Your task to perform on an android device: open app "Etsy: Buy & Sell Unique Items" (install if not already installed) Image 0: 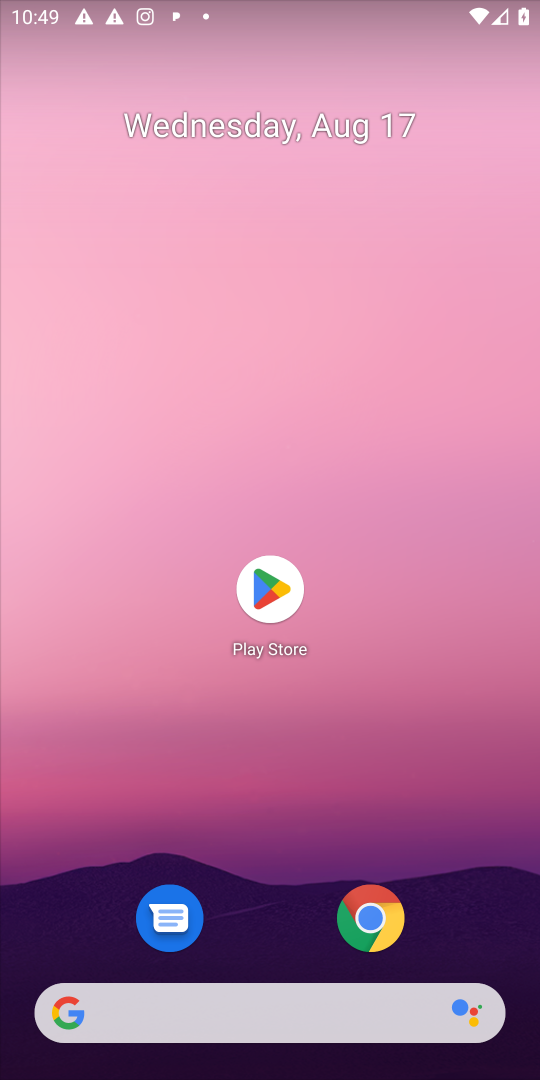
Step 0: click (271, 598)
Your task to perform on an android device: open app "Etsy: Buy & Sell Unique Items" (install if not already installed) Image 1: 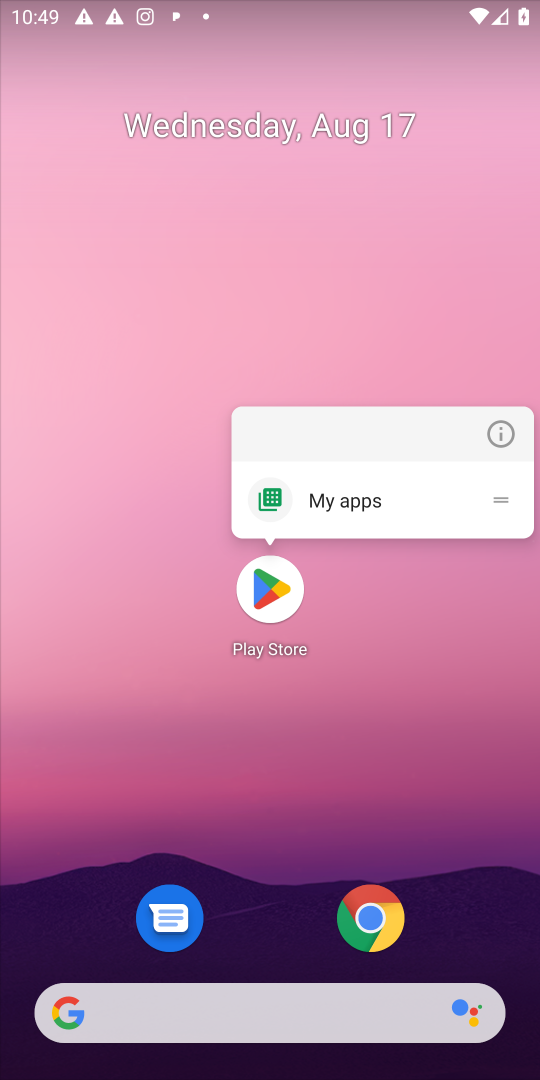
Step 1: click (271, 598)
Your task to perform on an android device: open app "Etsy: Buy & Sell Unique Items" (install if not already installed) Image 2: 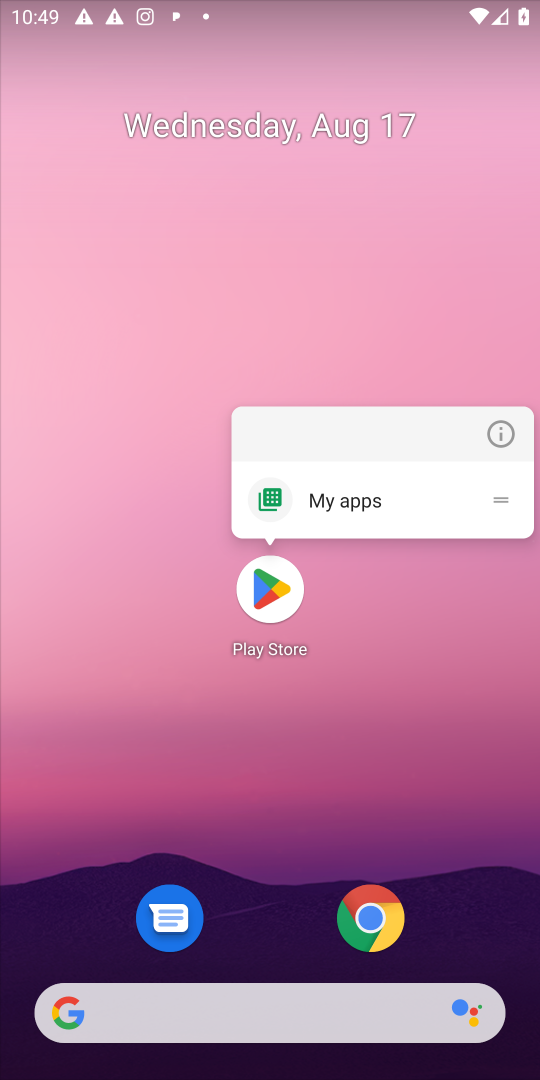
Step 2: click (271, 598)
Your task to perform on an android device: open app "Etsy: Buy & Sell Unique Items" (install if not already installed) Image 3: 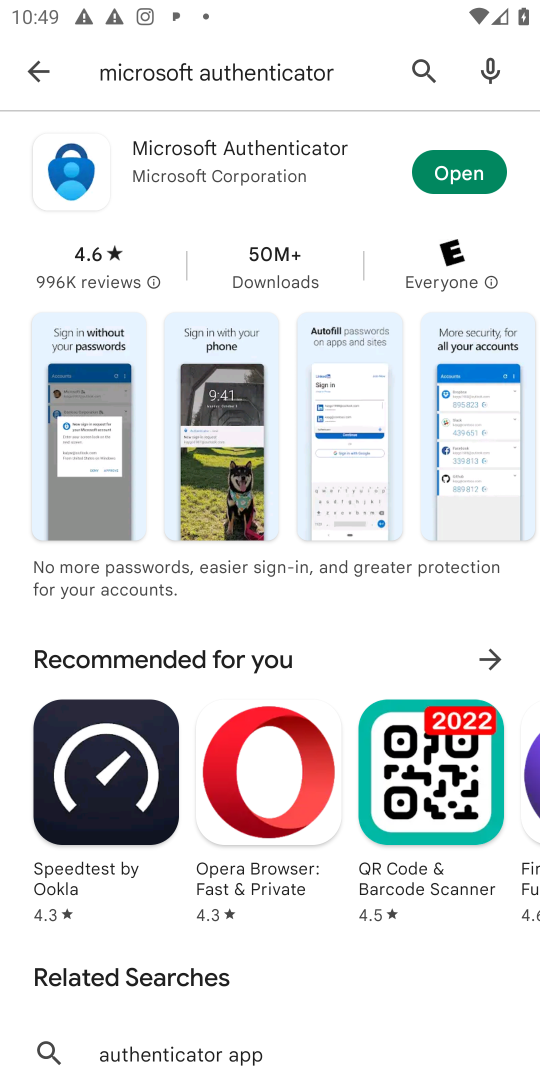
Step 3: click (417, 72)
Your task to perform on an android device: open app "Etsy: Buy & Sell Unique Items" (install if not already installed) Image 4: 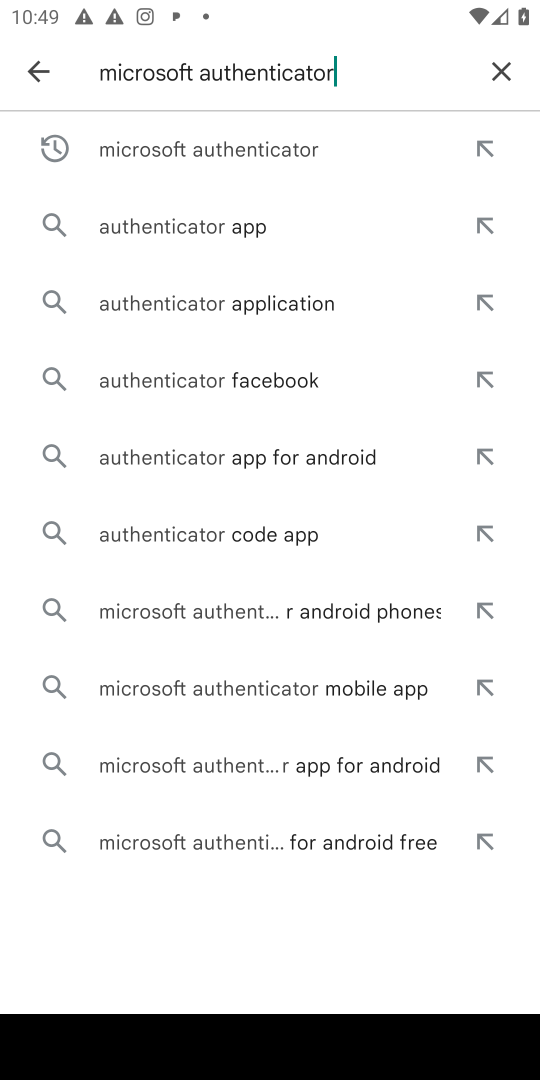
Step 4: click (500, 67)
Your task to perform on an android device: open app "Etsy: Buy & Sell Unique Items" (install if not already installed) Image 5: 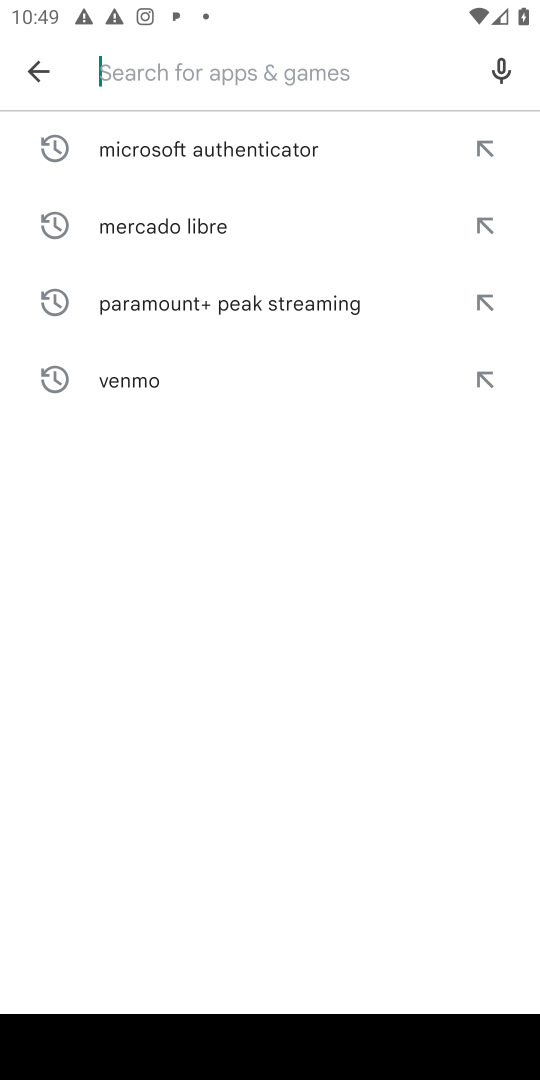
Step 5: type "Etsy: Buy & Sell Unique Items"
Your task to perform on an android device: open app "Etsy: Buy & Sell Unique Items" (install if not already installed) Image 6: 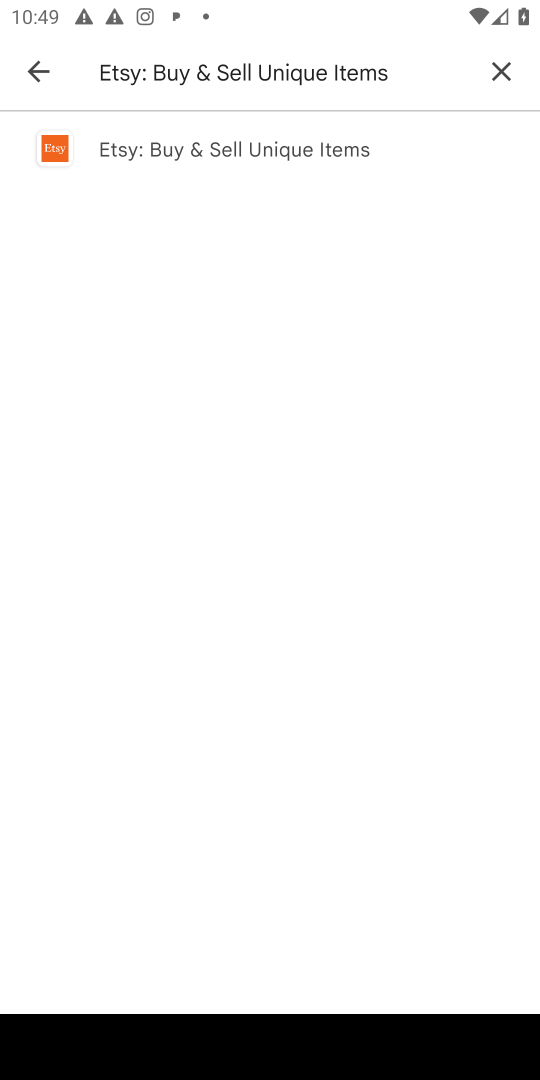
Step 6: click (263, 151)
Your task to perform on an android device: open app "Etsy: Buy & Sell Unique Items" (install if not already installed) Image 7: 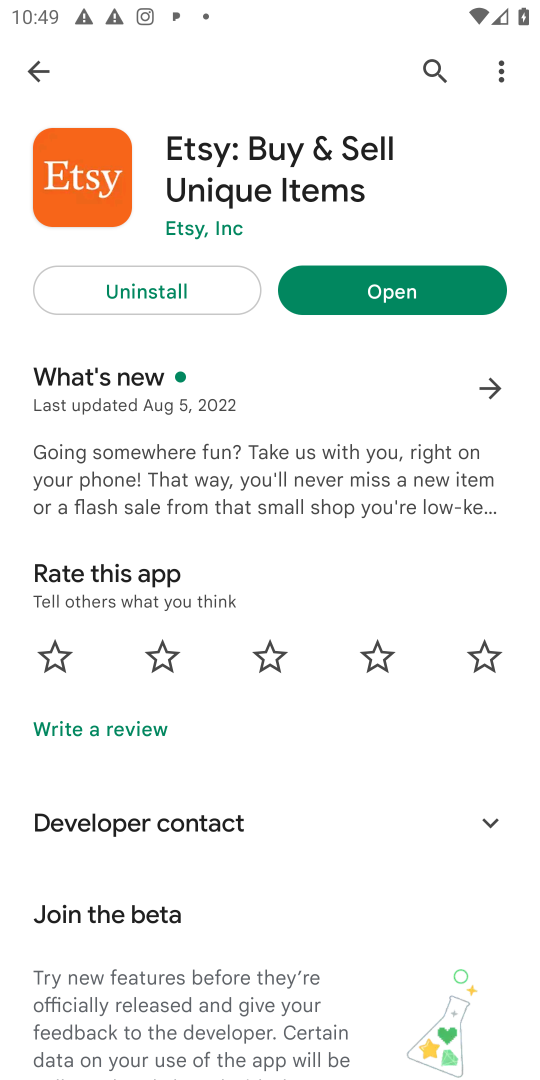
Step 7: click (381, 283)
Your task to perform on an android device: open app "Etsy: Buy & Sell Unique Items" (install if not already installed) Image 8: 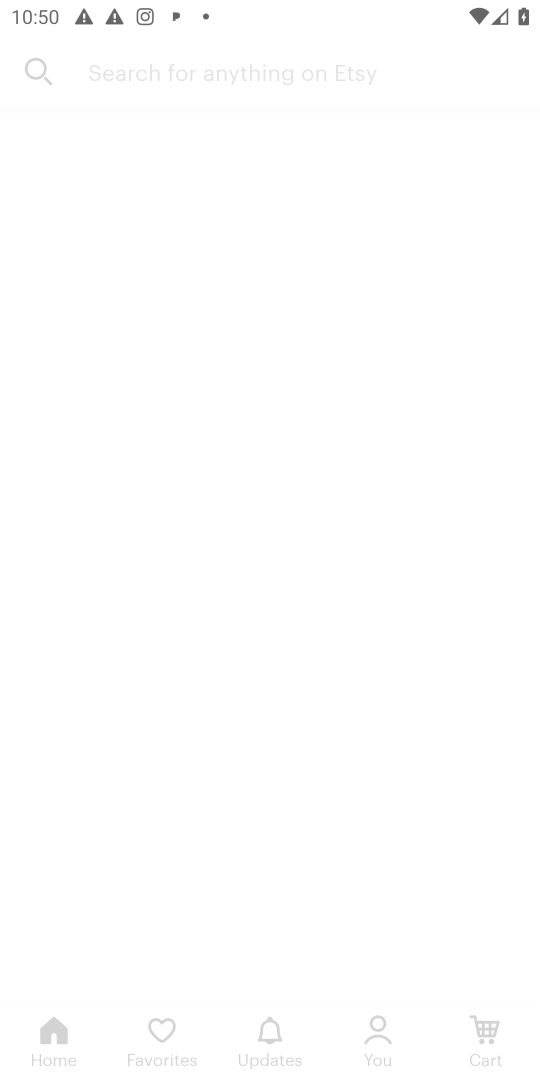
Step 8: click (152, 271)
Your task to perform on an android device: open app "Etsy: Buy & Sell Unique Items" (install if not already installed) Image 9: 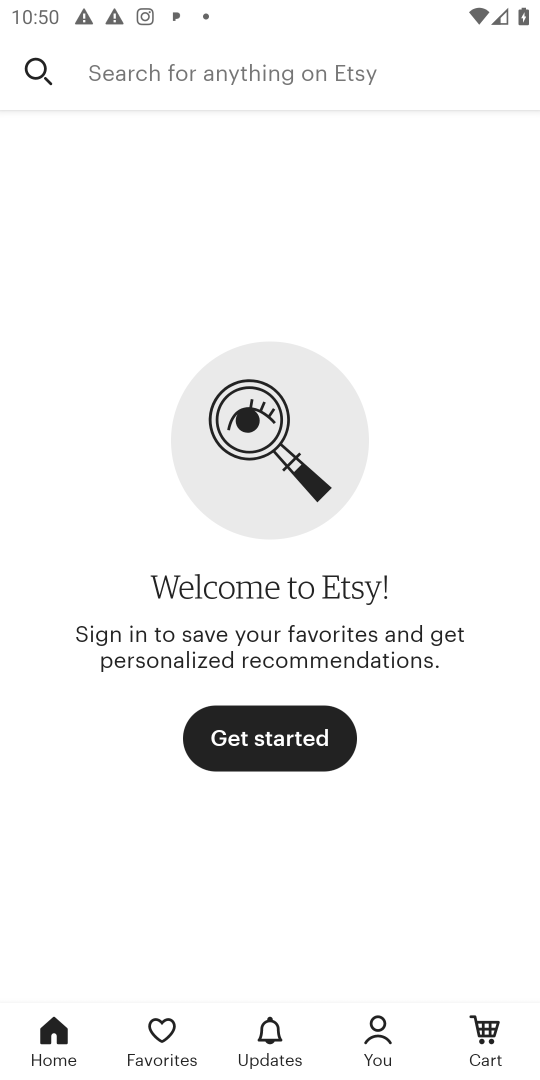
Step 9: task complete